Your task to perform on an android device: What's the weather going to be this weekend? Image 0: 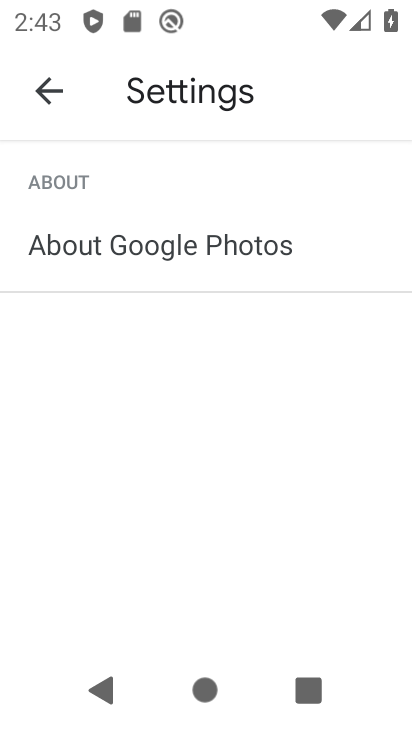
Step 0: press home button
Your task to perform on an android device: What's the weather going to be this weekend? Image 1: 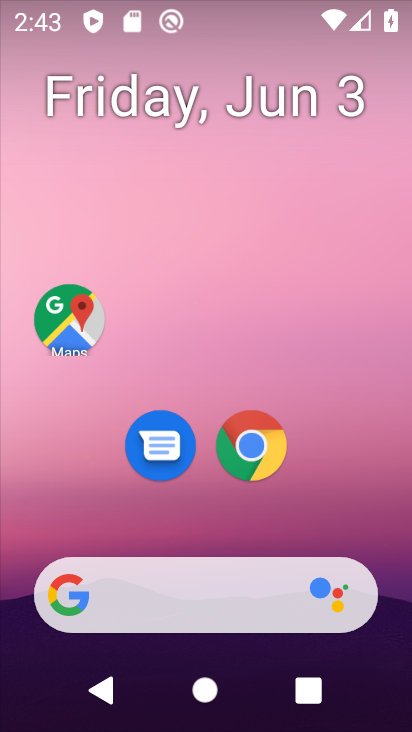
Step 1: drag from (0, 419) to (387, 314)
Your task to perform on an android device: What's the weather going to be this weekend? Image 2: 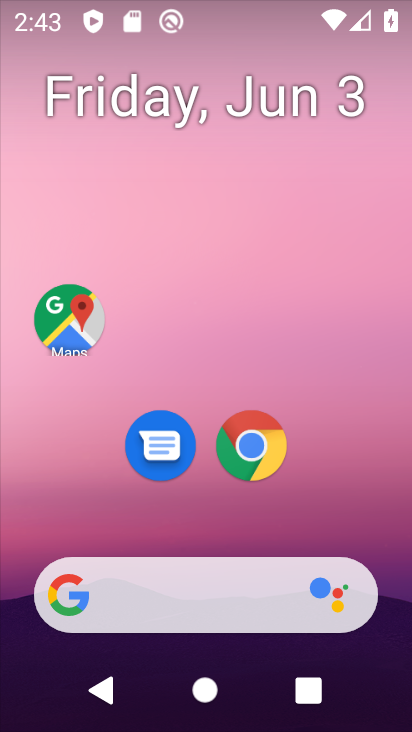
Step 2: drag from (7, 218) to (405, 211)
Your task to perform on an android device: What's the weather going to be this weekend? Image 3: 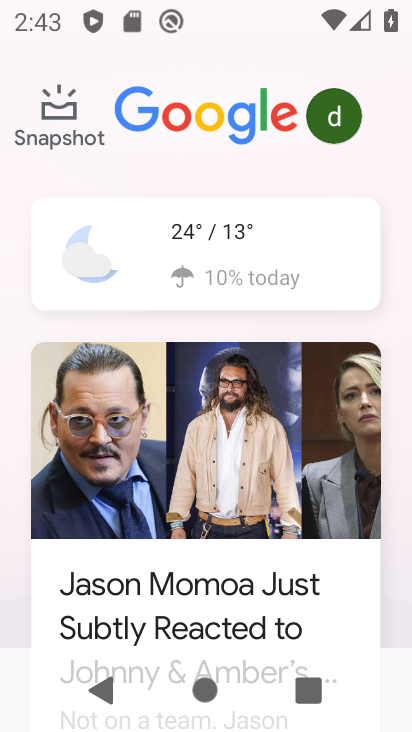
Step 3: click (244, 250)
Your task to perform on an android device: What's the weather going to be this weekend? Image 4: 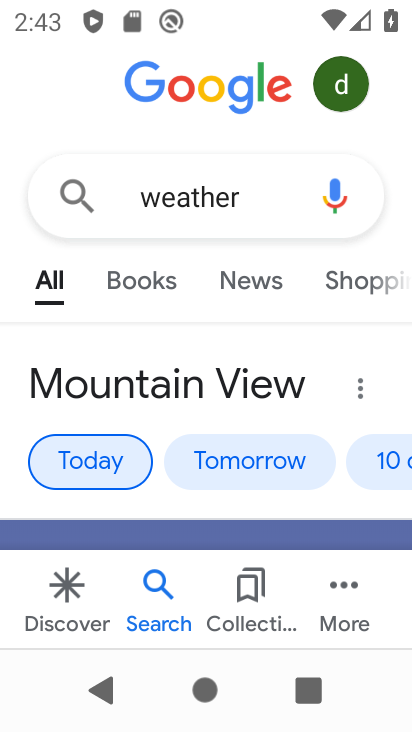
Step 4: click (381, 468)
Your task to perform on an android device: What's the weather going to be this weekend? Image 5: 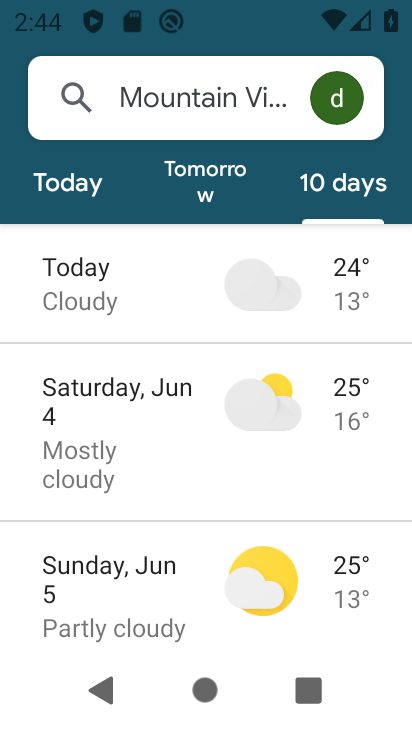
Step 5: task complete